Your task to perform on an android device: What's the weather? Image 0: 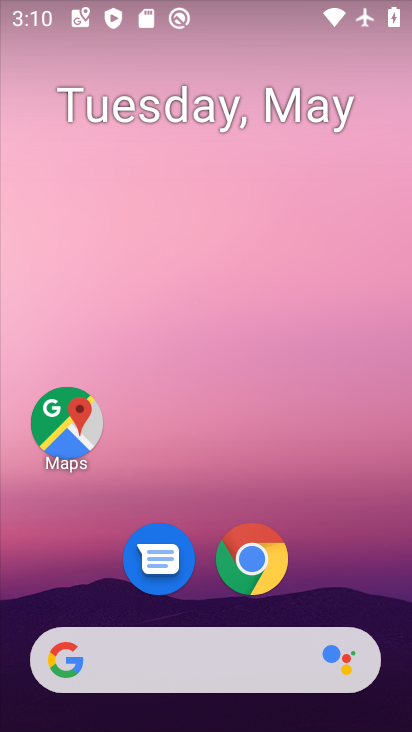
Step 0: press home button
Your task to perform on an android device: What's the weather? Image 1: 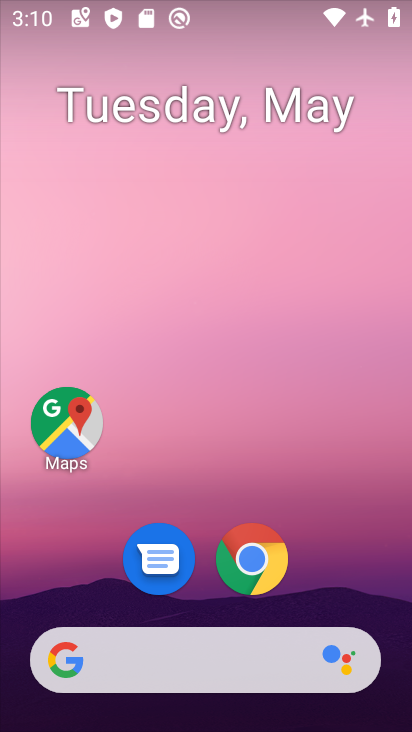
Step 1: click (67, 659)
Your task to perform on an android device: What's the weather? Image 2: 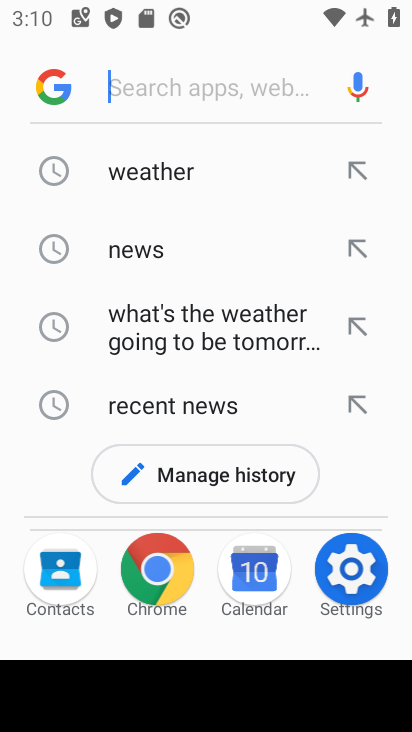
Step 2: click (165, 174)
Your task to perform on an android device: What's the weather? Image 3: 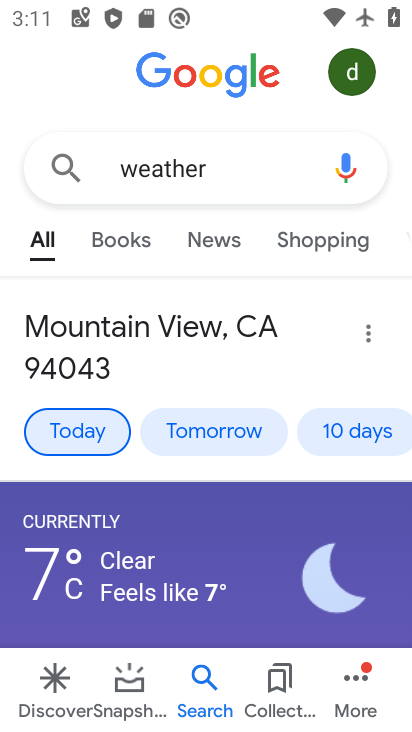
Step 3: task complete